Your task to perform on an android device: turn on bluetooth scan Image 0: 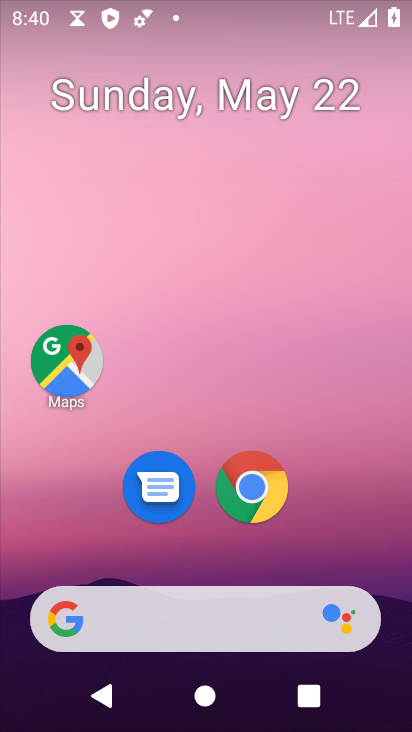
Step 0: drag from (342, 581) to (315, 184)
Your task to perform on an android device: turn on bluetooth scan Image 1: 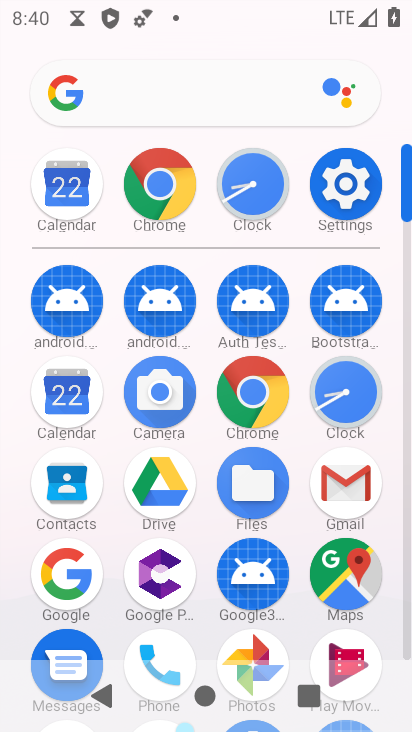
Step 1: click (315, 188)
Your task to perform on an android device: turn on bluetooth scan Image 2: 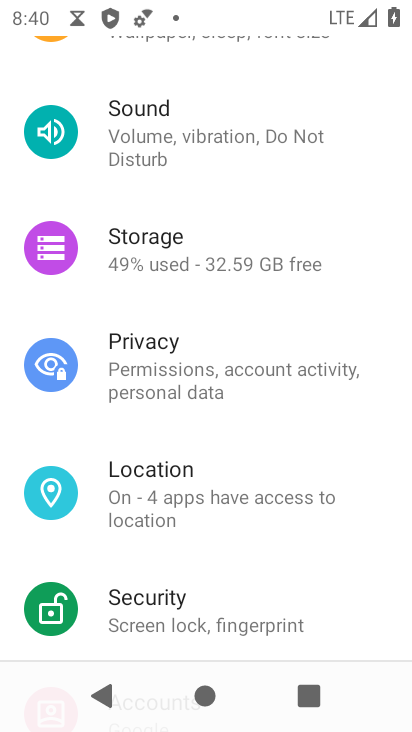
Step 2: click (164, 474)
Your task to perform on an android device: turn on bluetooth scan Image 3: 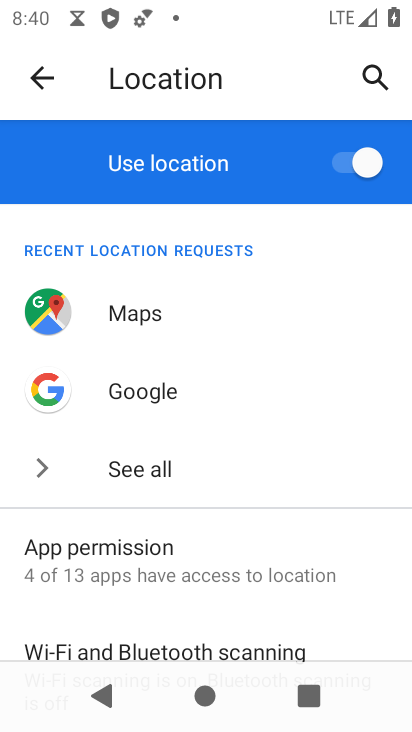
Step 3: drag from (206, 570) to (203, 374)
Your task to perform on an android device: turn on bluetooth scan Image 4: 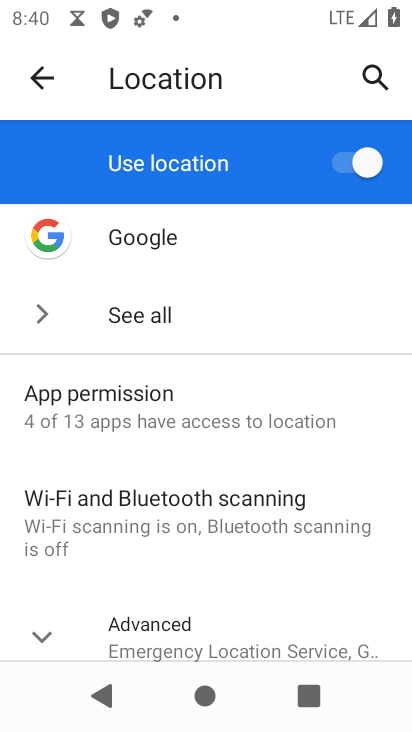
Step 4: click (202, 538)
Your task to perform on an android device: turn on bluetooth scan Image 5: 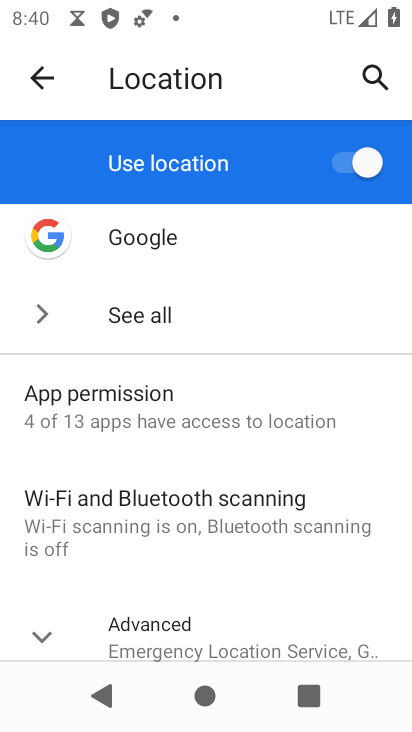
Step 5: click (221, 508)
Your task to perform on an android device: turn on bluetooth scan Image 6: 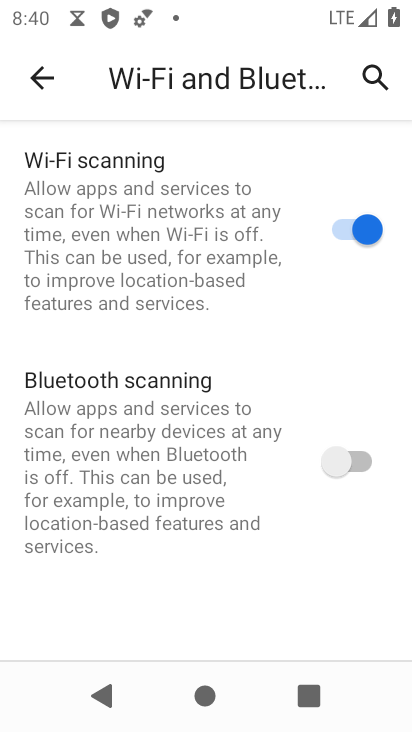
Step 6: click (339, 458)
Your task to perform on an android device: turn on bluetooth scan Image 7: 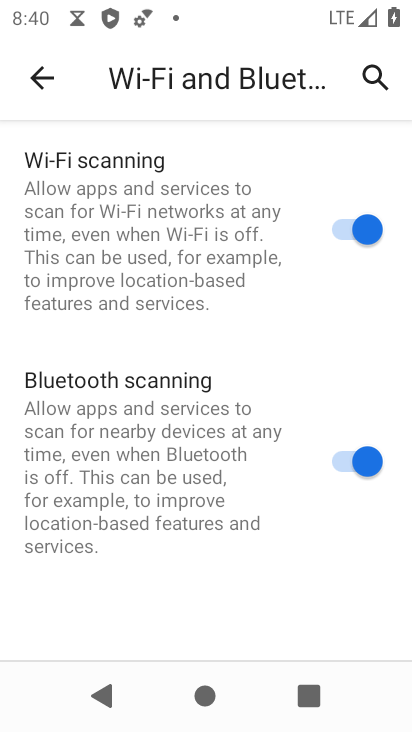
Step 7: task complete